Your task to perform on an android device: turn notification dots on Image 0: 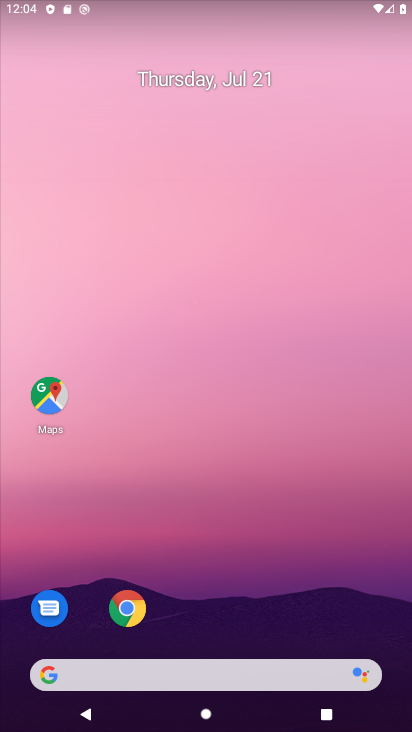
Step 0: drag from (204, 628) to (231, 34)
Your task to perform on an android device: turn notification dots on Image 1: 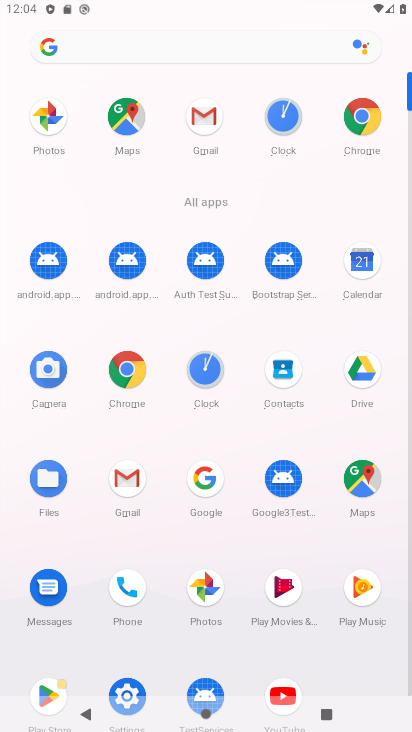
Step 1: click (125, 681)
Your task to perform on an android device: turn notification dots on Image 2: 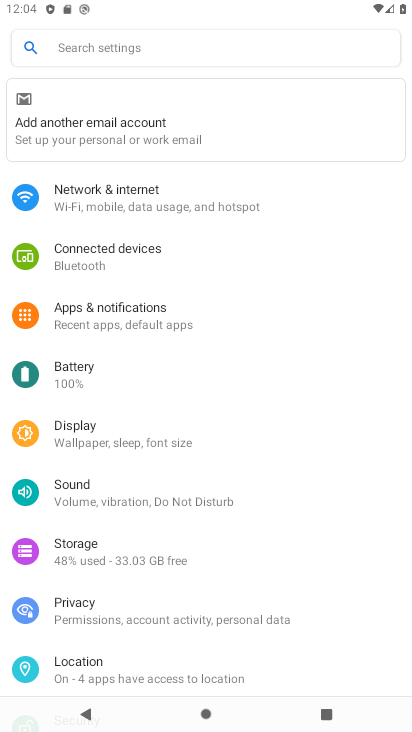
Step 2: click (170, 304)
Your task to perform on an android device: turn notification dots on Image 3: 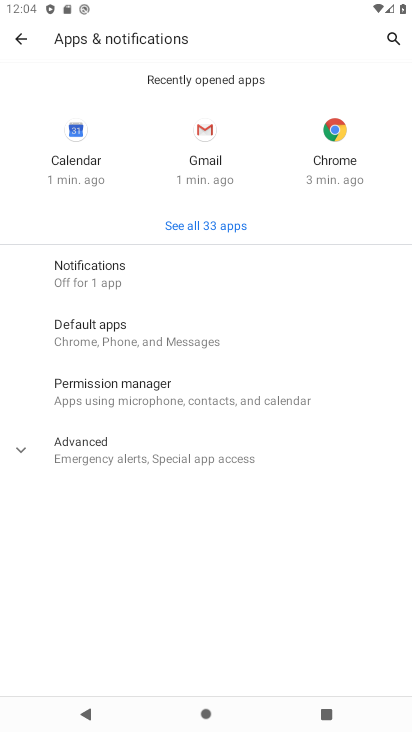
Step 3: click (92, 269)
Your task to perform on an android device: turn notification dots on Image 4: 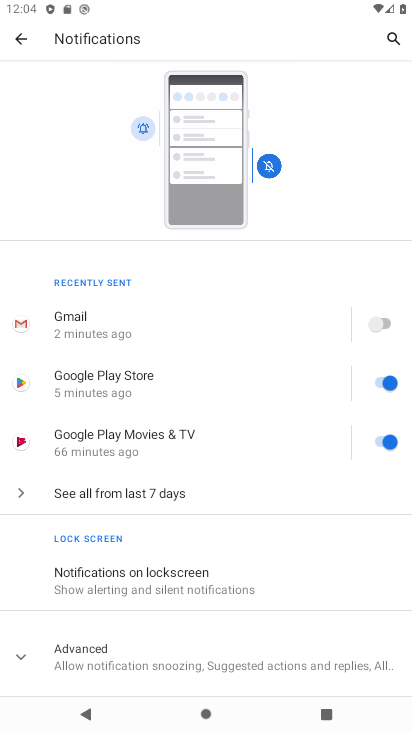
Step 4: click (32, 653)
Your task to perform on an android device: turn notification dots on Image 5: 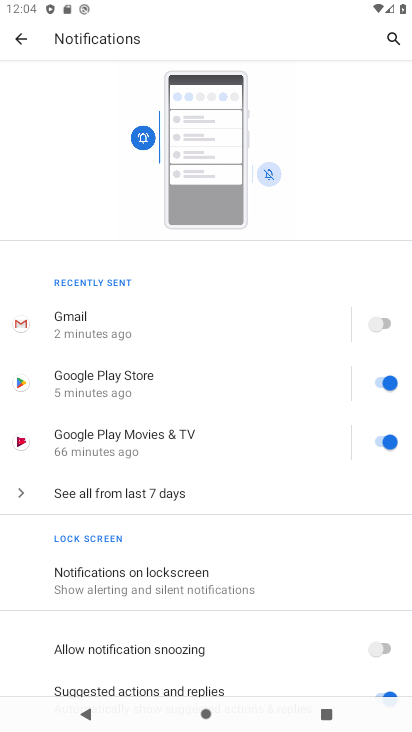
Step 5: task complete